Your task to perform on an android device: Search for "logitech g pro" on amazon, select the first entry, add it to the cart, then select checkout. Image 0: 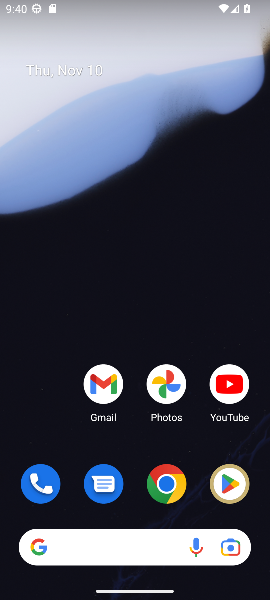
Step 0: click (169, 486)
Your task to perform on an android device: Search for "logitech g pro" on amazon, select the first entry, add it to the cart, then select checkout. Image 1: 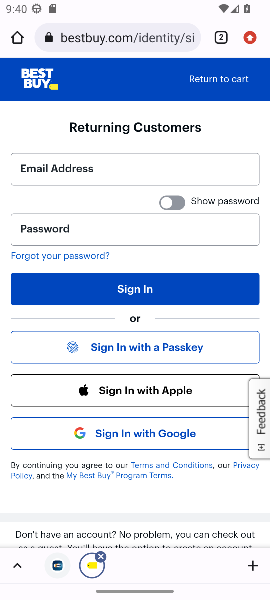
Step 1: click (99, 46)
Your task to perform on an android device: Search for "logitech g pro" on amazon, select the first entry, add it to the cart, then select checkout. Image 2: 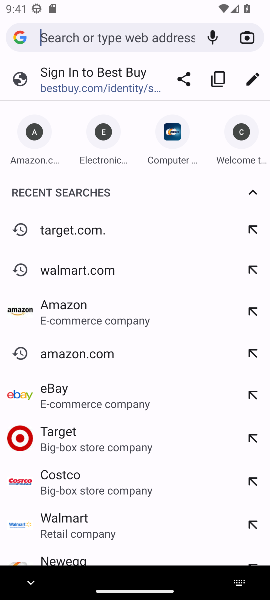
Step 2: click (39, 139)
Your task to perform on an android device: Search for "logitech g pro" on amazon, select the first entry, add it to the cart, then select checkout. Image 3: 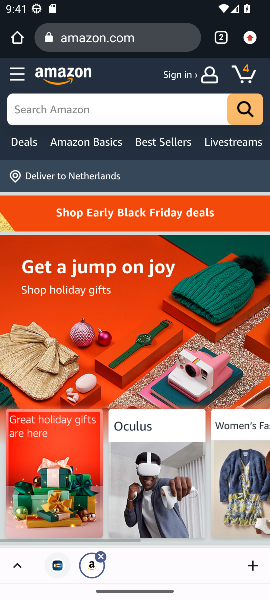
Step 3: click (57, 115)
Your task to perform on an android device: Search for "logitech g pro" on amazon, select the first entry, add it to the cart, then select checkout. Image 4: 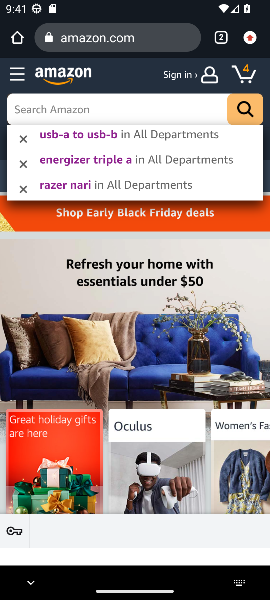
Step 4: type "logitech g pro"
Your task to perform on an android device: Search for "logitech g pro" on amazon, select the first entry, add it to the cart, then select checkout. Image 5: 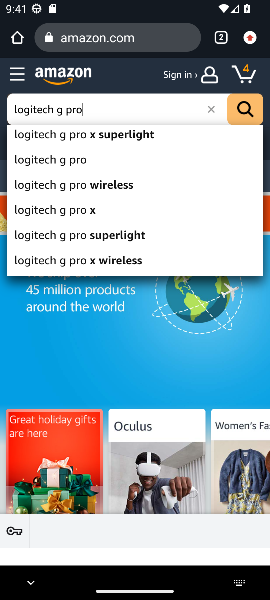
Step 5: click (50, 162)
Your task to perform on an android device: Search for "logitech g pro" on amazon, select the first entry, add it to the cart, then select checkout. Image 6: 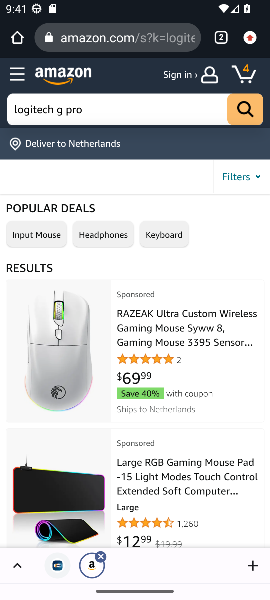
Step 6: task complete